Your task to perform on an android device: Open my contact list Image 0: 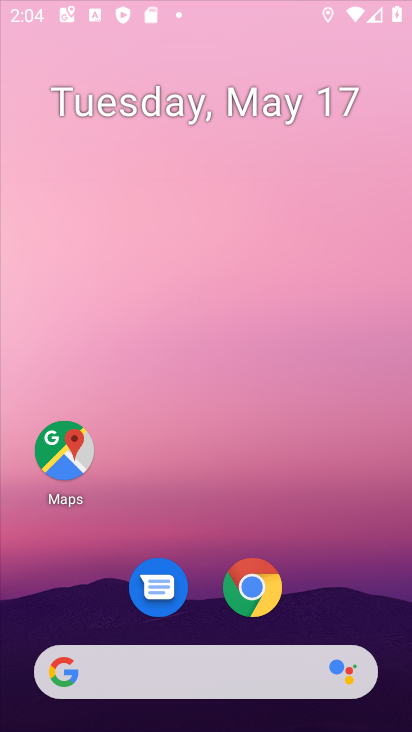
Step 0: click (254, 196)
Your task to perform on an android device: Open my contact list Image 1: 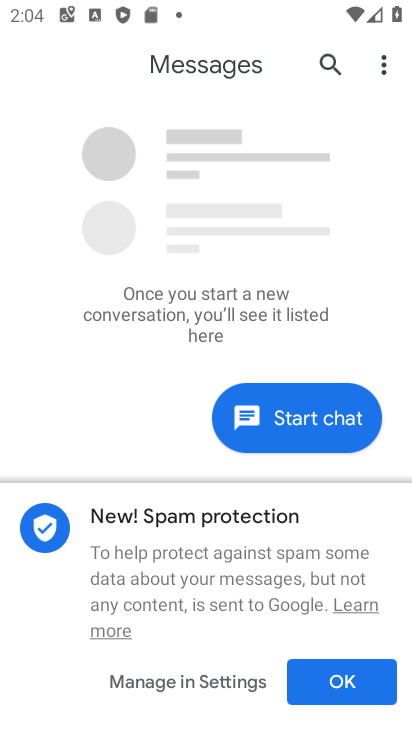
Step 1: press home button
Your task to perform on an android device: Open my contact list Image 2: 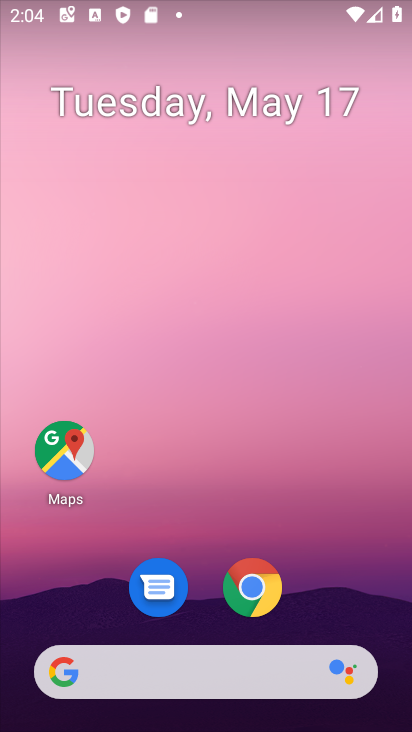
Step 2: drag from (208, 601) to (232, 152)
Your task to perform on an android device: Open my contact list Image 3: 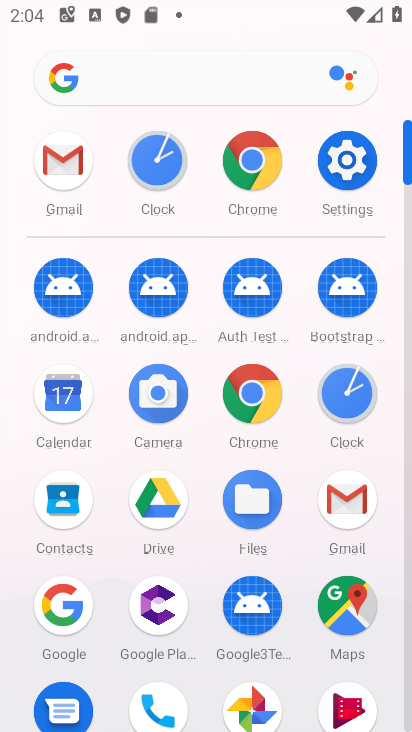
Step 3: click (56, 521)
Your task to perform on an android device: Open my contact list Image 4: 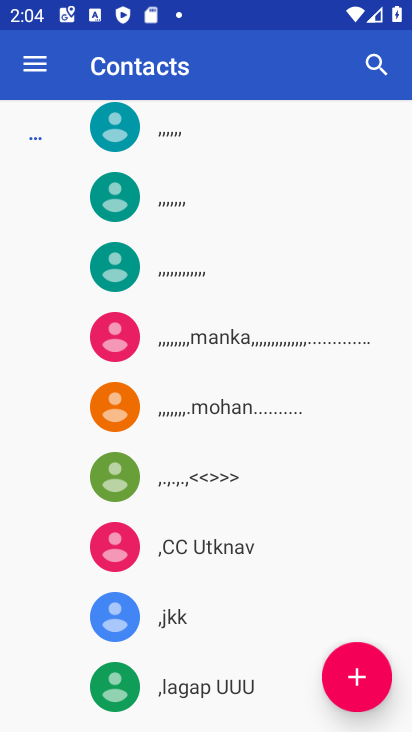
Step 4: task complete